Your task to perform on an android device: make emails show in primary in the gmail app Image 0: 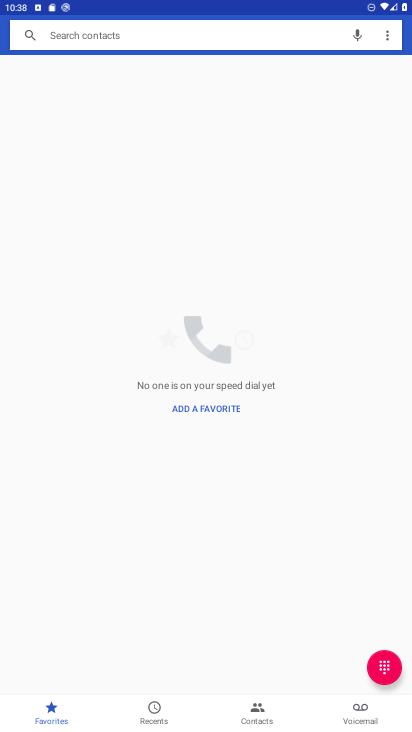
Step 0: press home button
Your task to perform on an android device: make emails show in primary in the gmail app Image 1: 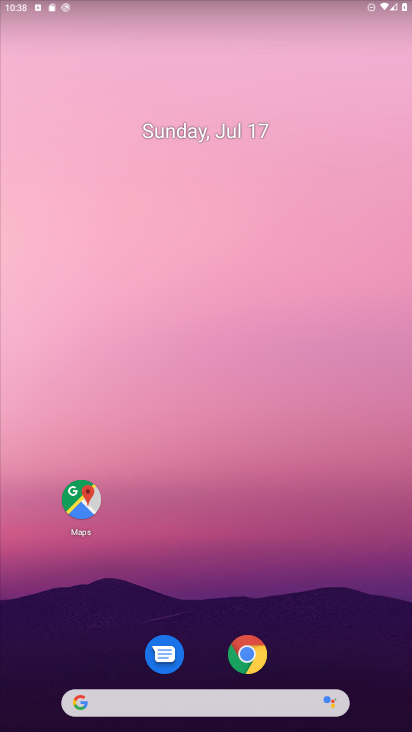
Step 1: drag from (213, 621) to (227, 141)
Your task to perform on an android device: make emails show in primary in the gmail app Image 2: 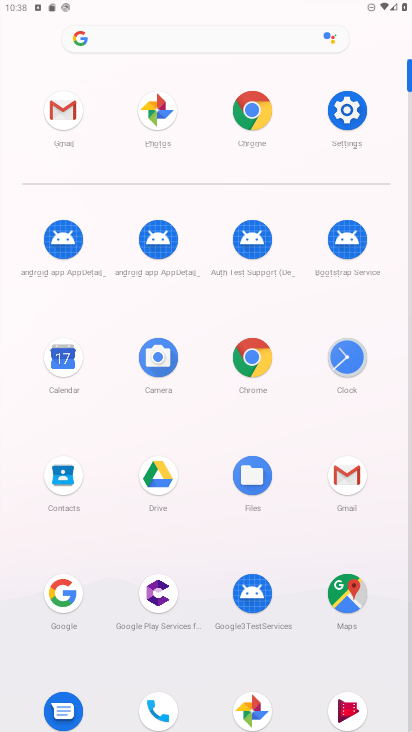
Step 2: click (349, 491)
Your task to perform on an android device: make emails show in primary in the gmail app Image 3: 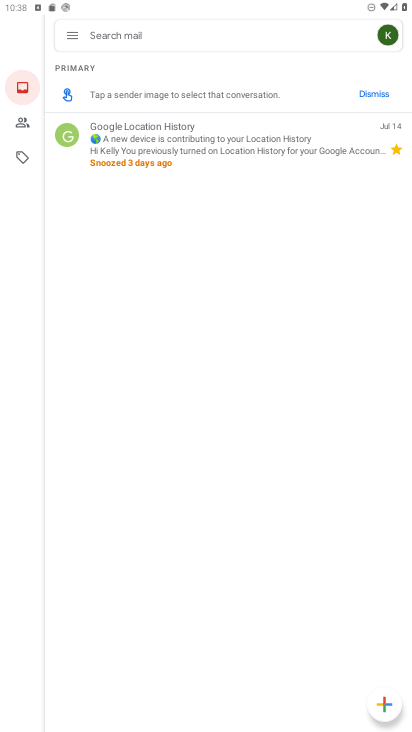
Step 3: click (62, 40)
Your task to perform on an android device: make emails show in primary in the gmail app Image 4: 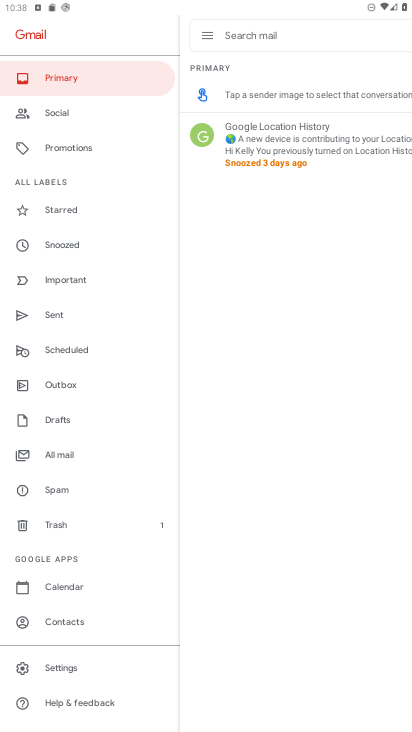
Step 4: click (71, 674)
Your task to perform on an android device: make emails show in primary in the gmail app Image 5: 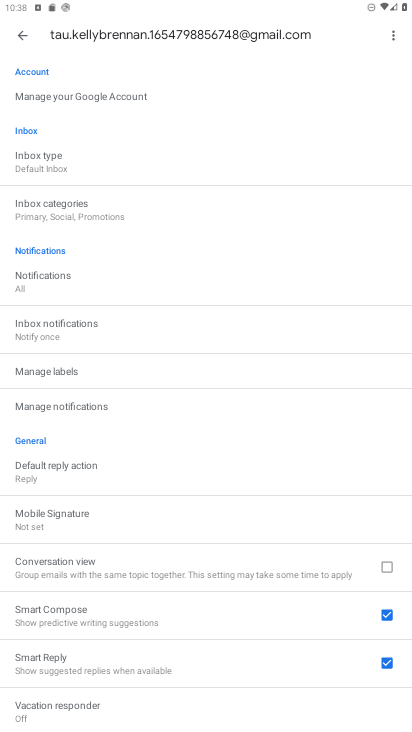
Step 5: click (9, 153)
Your task to perform on an android device: make emails show in primary in the gmail app Image 6: 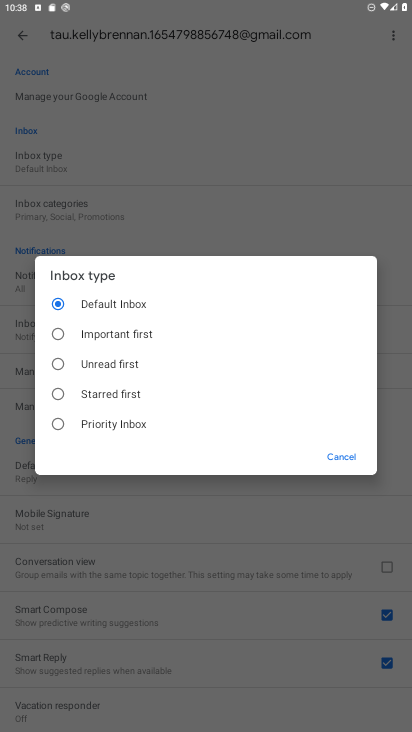
Step 6: task complete